Your task to perform on an android device: toggle javascript in the chrome app Image 0: 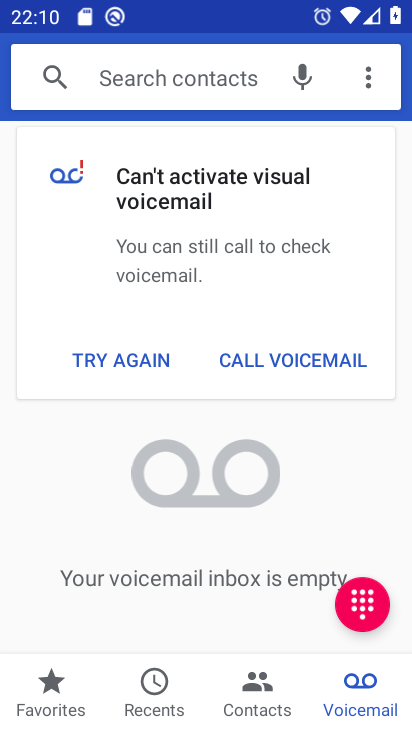
Step 0: press home button
Your task to perform on an android device: toggle javascript in the chrome app Image 1: 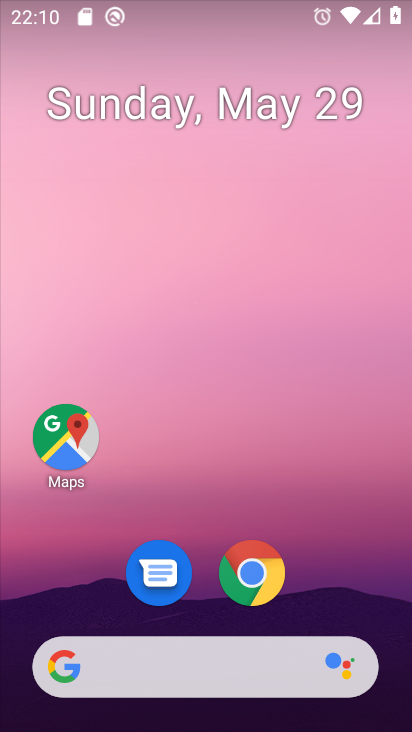
Step 1: drag from (205, 490) to (222, 0)
Your task to perform on an android device: toggle javascript in the chrome app Image 2: 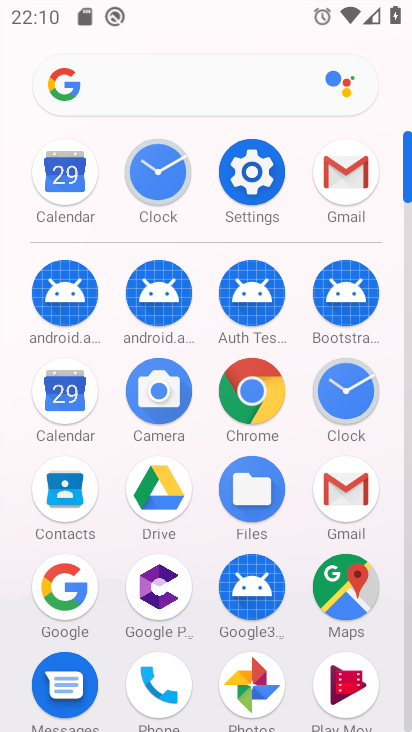
Step 2: click (254, 174)
Your task to perform on an android device: toggle javascript in the chrome app Image 3: 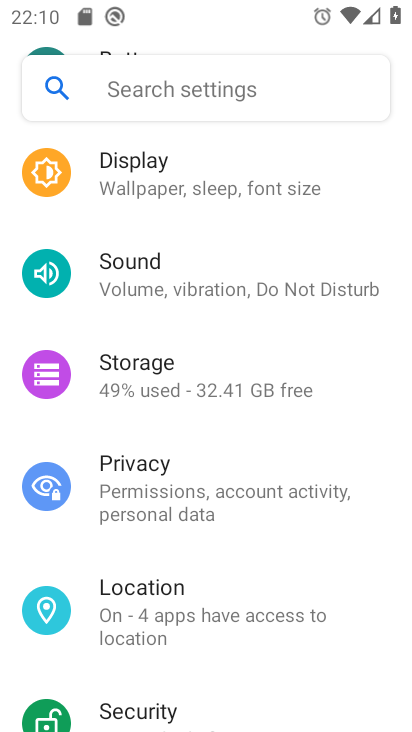
Step 3: press home button
Your task to perform on an android device: toggle javascript in the chrome app Image 4: 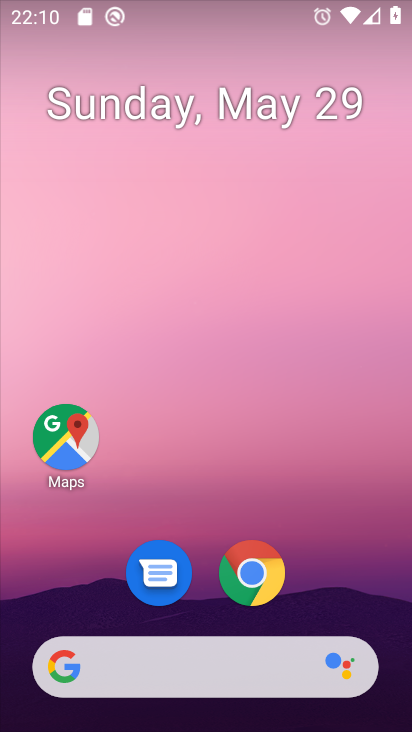
Step 4: click (260, 569)
Your task to perform on an android device: toggle javascript in the chrome app Image 5: 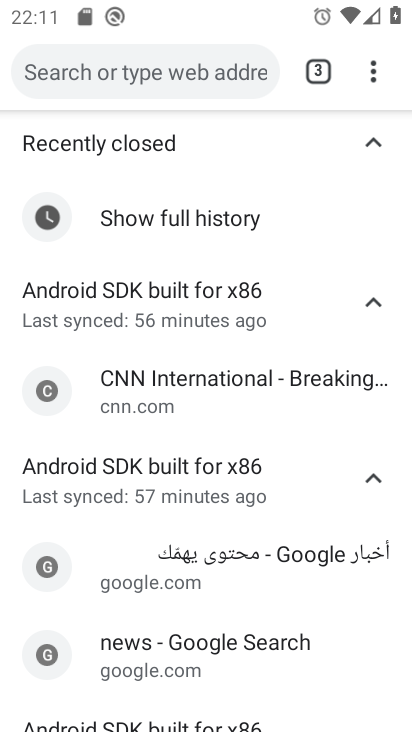
Step 5: click (370, 65)
Your task to perform on an android device: toggle javascript in the chrome app Image 6: 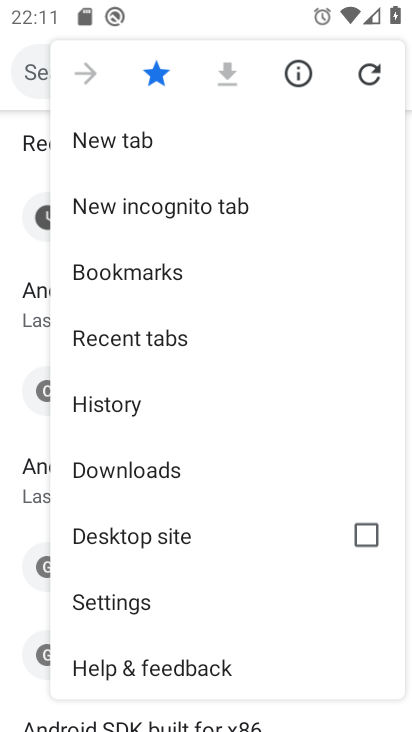
Step 6: click (159, 592)
Your task to perform on an android device: toggle javascript in the chrome app Image 7: 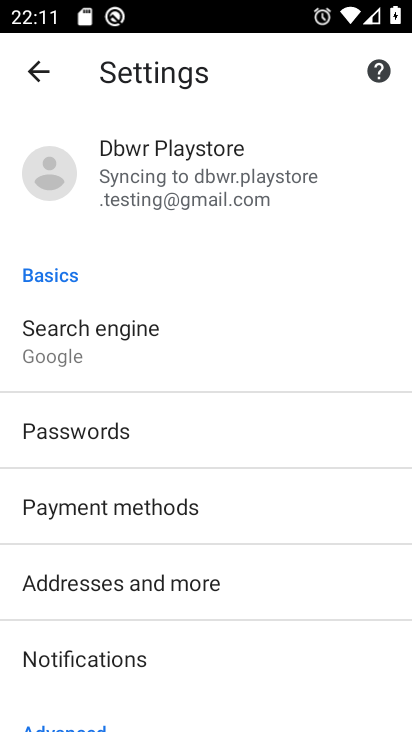
Step 7: drag from (231, 525) to (254, 159)
Your task to perform on an android device: toggle javascript in the chrome app Image 8: 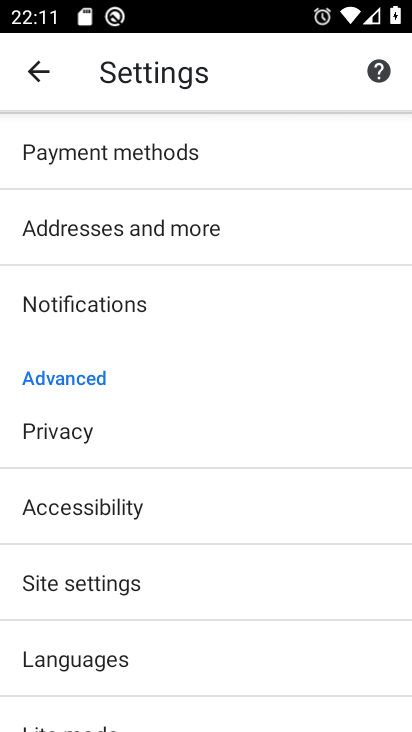
Step 8: click (145, 575)
Your task to perform on an android device: toggle javascript in the chrome app Image 9: 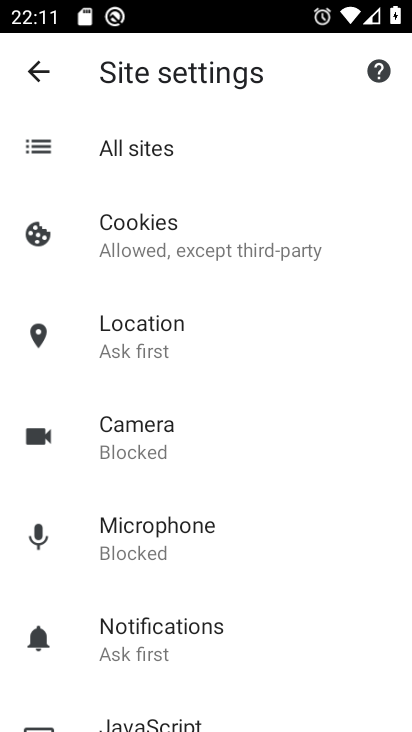
Step 9: drag from (271, 437) to (252, 199)
Your task to perform on an android device: toggle javascript in the chrome app Image 10: 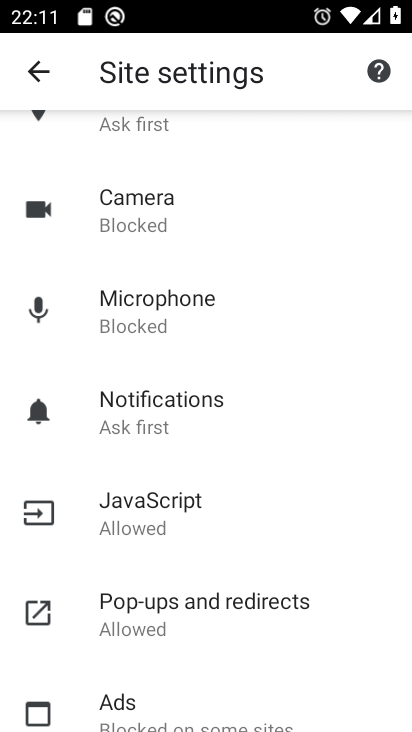
Step 10: click (160, 495)
Your task to perform on an android device: toggle javascript in the chrome app Image 11: 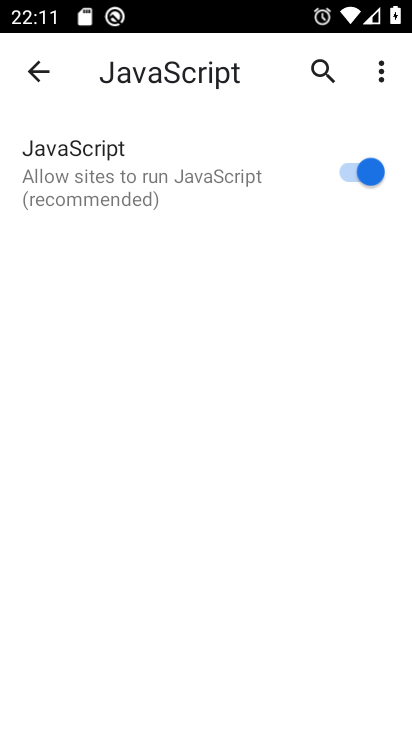
Step 11: click (369, 158)
Your task to perform on an android device: toggle javascript in the chrome app Image 12: 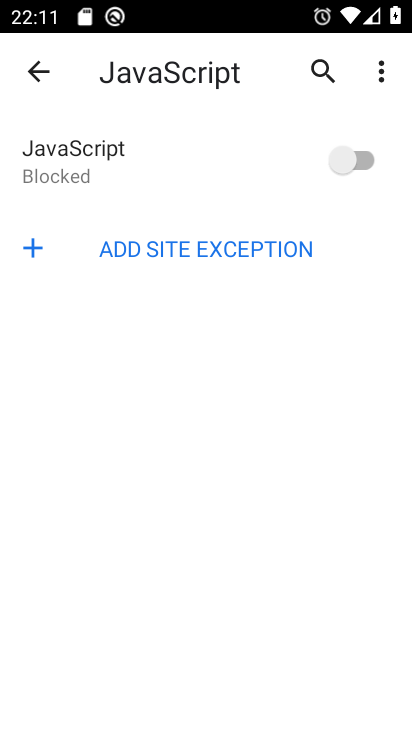
Step 12: task complete